Your task to perform on an android device: Open settings on Google Maps Image 0: 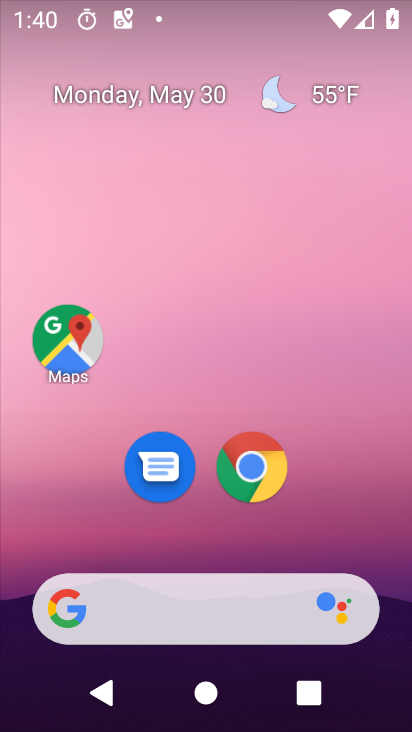
Step 0: click (59, 337)
Your task to perform on an android device: Open settings on Google Maps Image 1: 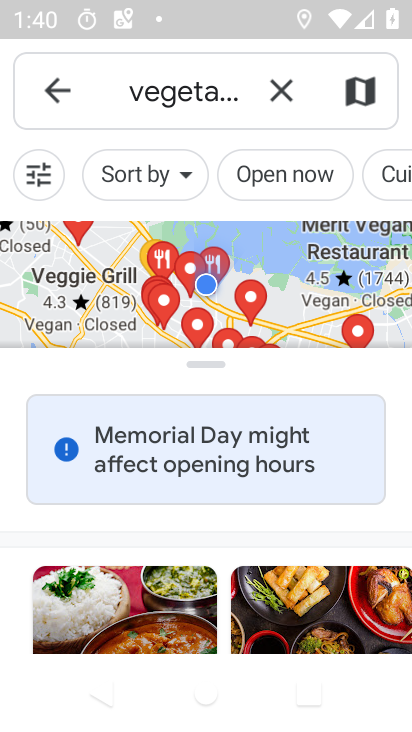
Step 1: click (61, 81)
Your task to perform on an android device: Open settings on Google Maps Image 2: 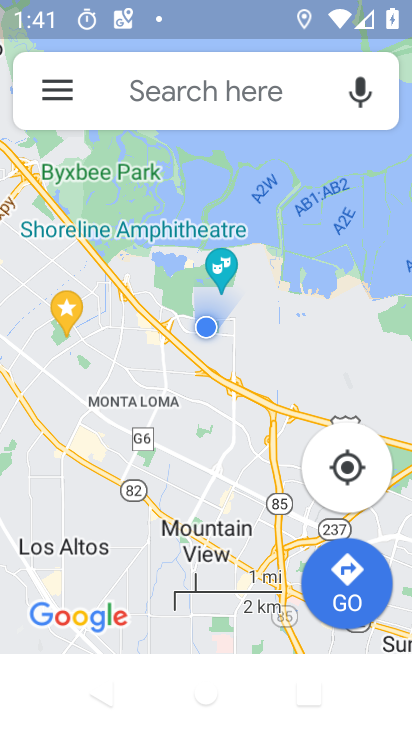
Step 2: click (47, 94)
Your task to perform on an android device: Open settings on Google Maps Image 3: 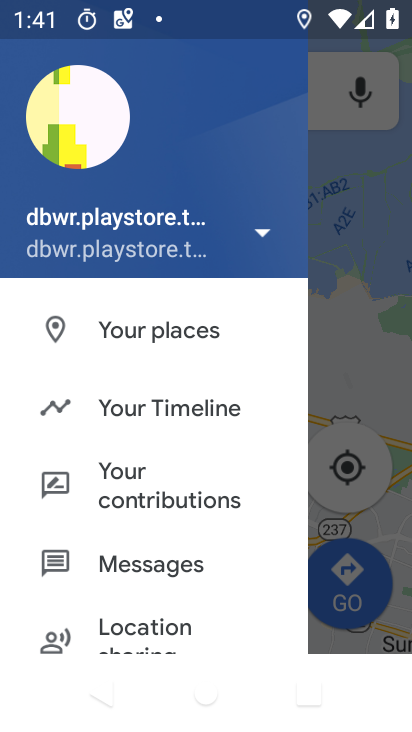
Step 3: click (279, 50)
Your task to perform on an android device: Open settings on Google Maps Image 4: 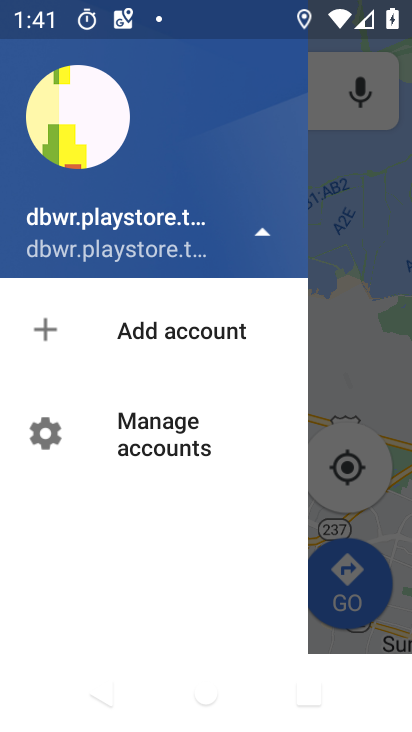
Step 4: drag from (265, 539) to (302, 224)
Your task to perform on an android device: Open settings on Google Maps Image 5: 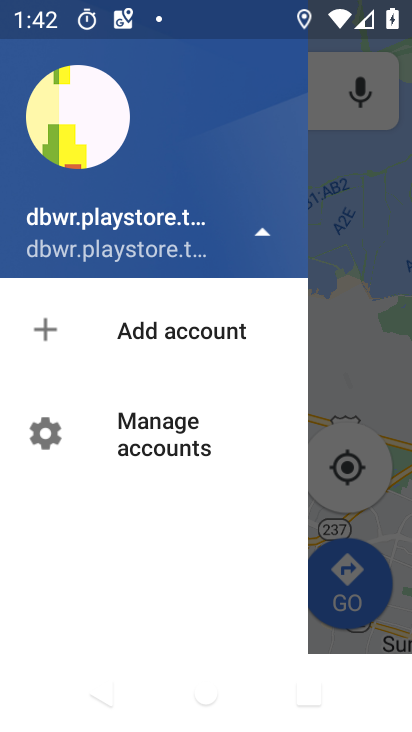
Step 5: press back button
Your task to perform on an android device: Open settings on Google Maps Image 6: 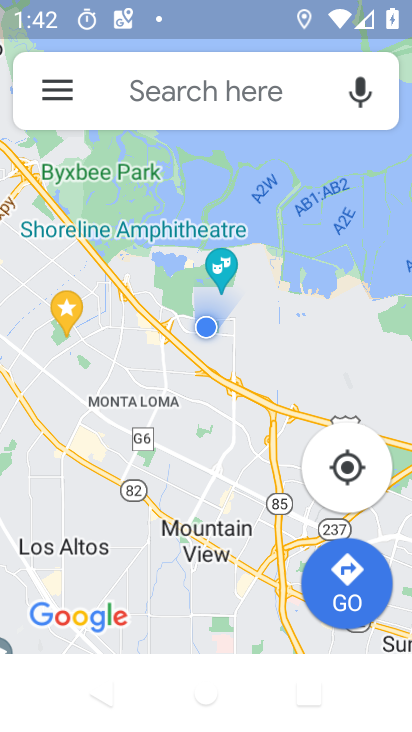
Step 6: click (43, 87)
Your task to perform on an android device: Open settings on Google Maps Image 7: 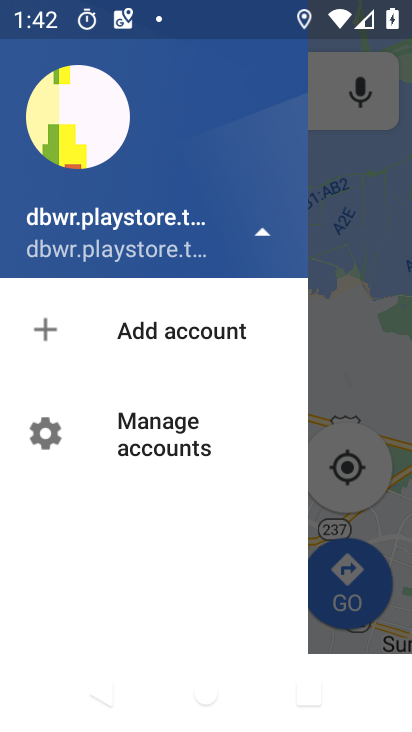
Step 7: task complete